Your task to perform on an android device: Go to CNN.com Image 0: 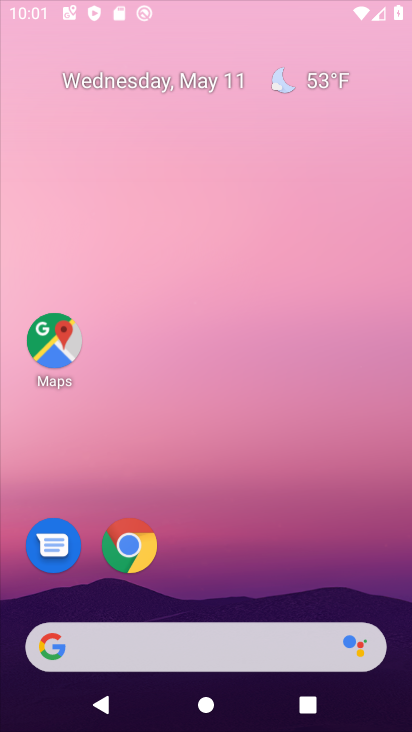
Step 0: click (360, 603)
Your task to perform on an android device: Go to CNN.com Image 1: 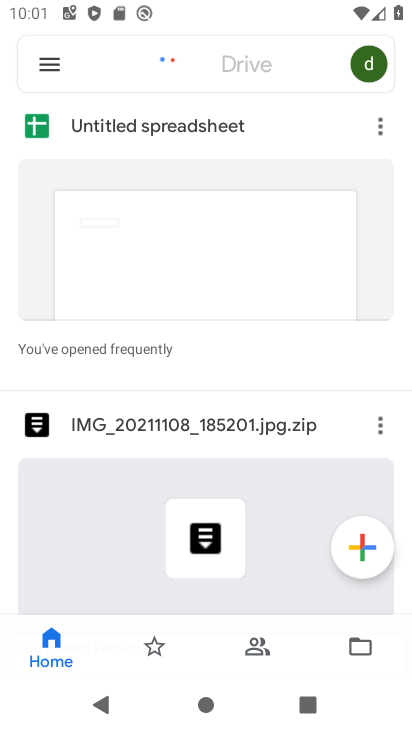
Step 1: press home button
Your task to perform on an android device: Go to CNN.com Image 2: 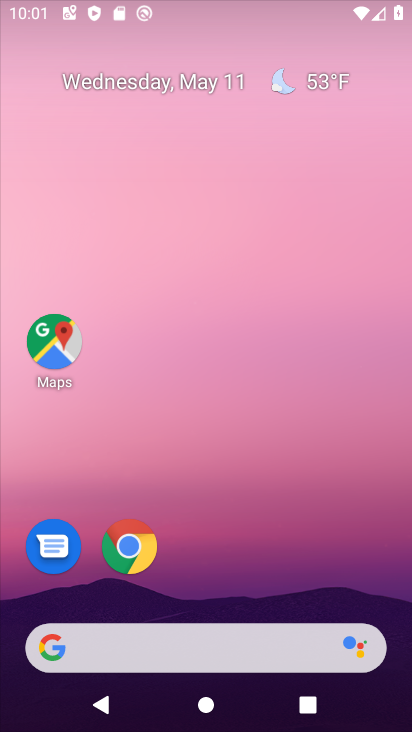
Step 2: drag from (403, 616) to (287, 117)
Your task to perform on an android device: Go to CNN.com Image 3: 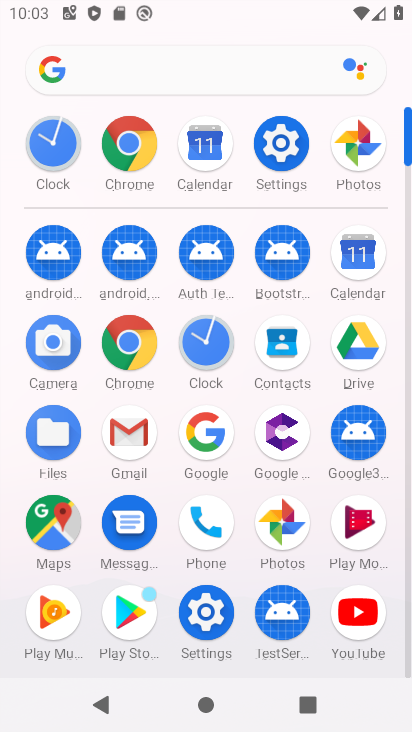
Step 3: click (141, 356)
Your task to perform on an android device: Go to CNN.com Image 4: 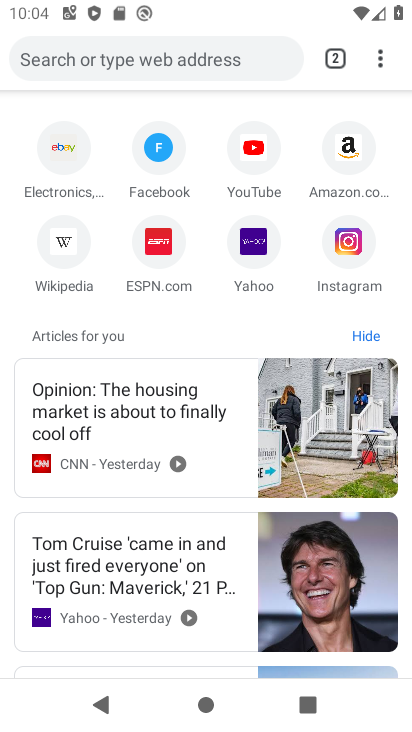
Step 4: click (186, 53)
Your task to perform on an android device: Go to CNN.com Image 5: 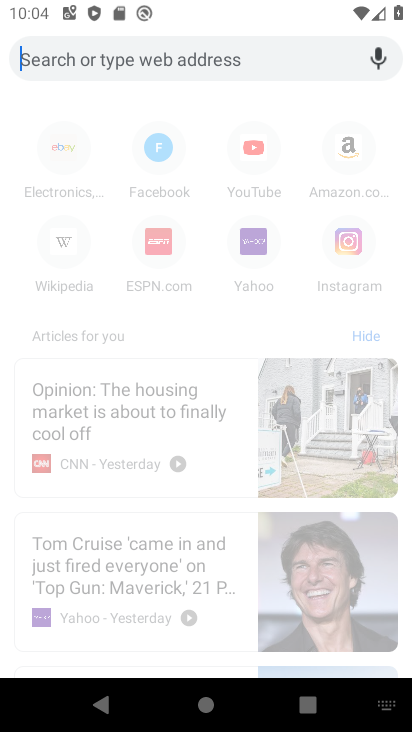
Step 5: type "cnn.com"
Your task to perform on an android device: Go to CNN.com Image 6: 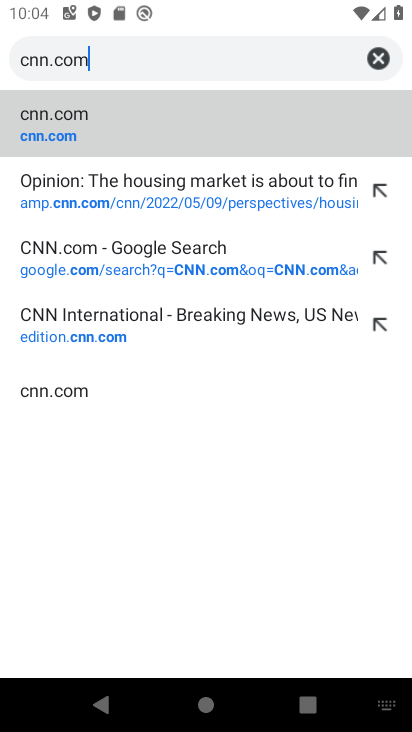
Step 6: click (180, 131)
Your task to perform on an android device: Go to CNN.com Image 7: 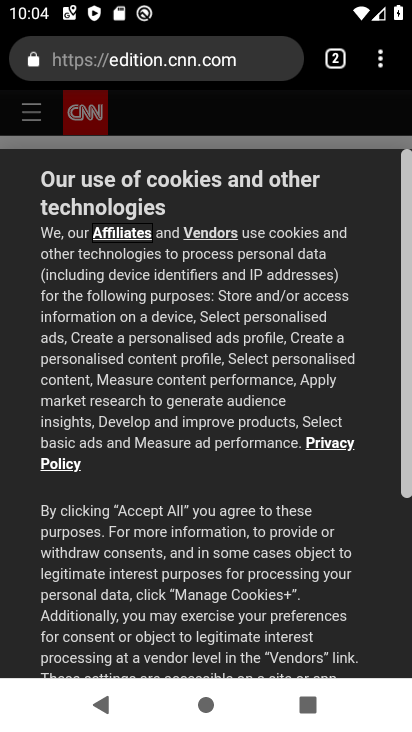
Step 7: task complete